Your task to perform on an android device: Go to settings Image 0: 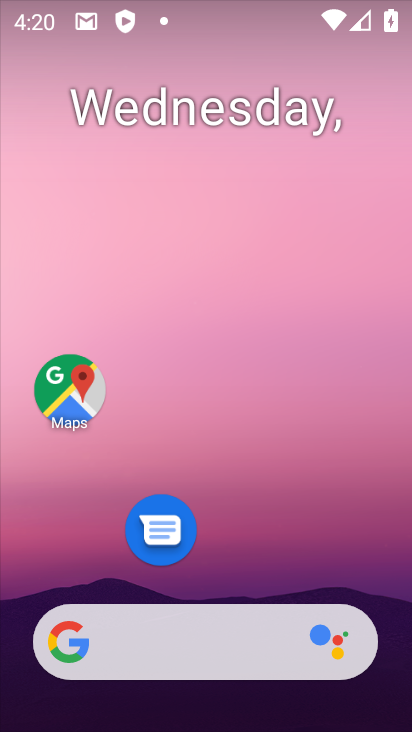
Step 0: drag from (210, 529) to (214, 36)
Your task to perform on an android device: Go to settings Image 1: 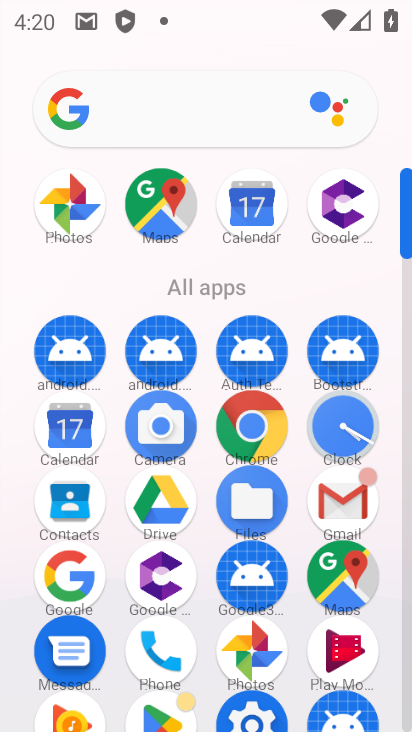
Step 1: click (251, 713)
Your task to perform on an android device: Go to settings Image 2: 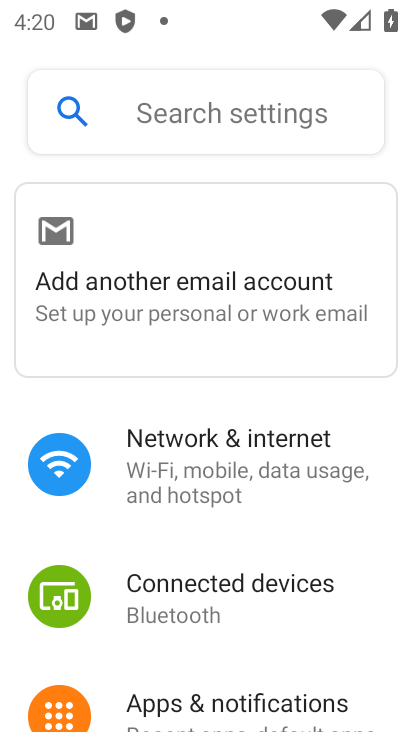
Step 2: task complete